Your task to perform on an android device: Open the map Image 0: 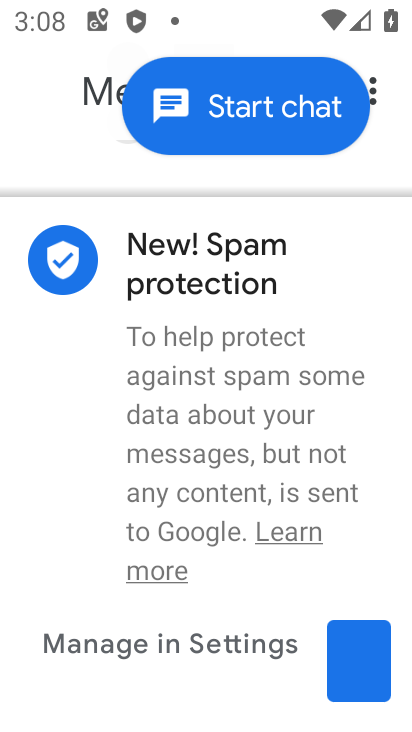
Step 0: press back button
Your task to perform on an android device: Open the map Image 1: 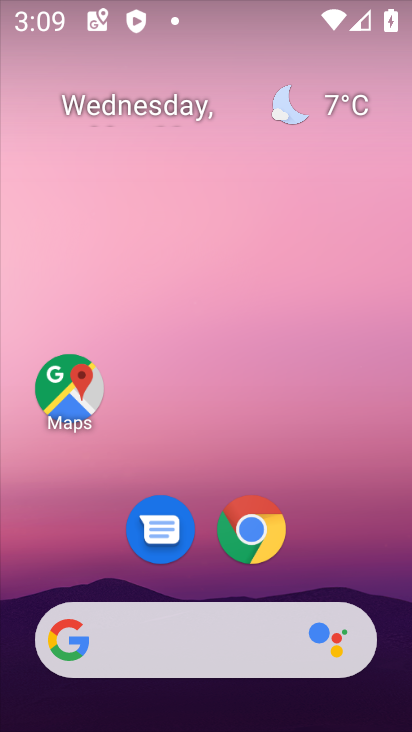
Step 1: click (75, 388)
Your task to perform on an android device: Open the map Image 2: 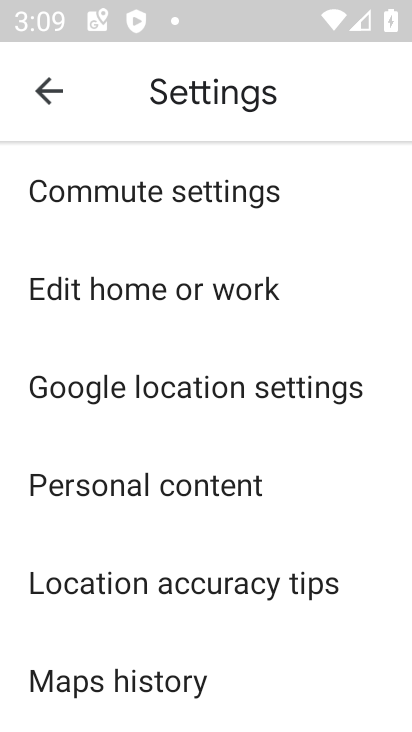
Step 2: task complete